Your task to perform on an android device: Play the last video I watched on Youtube Image 0: 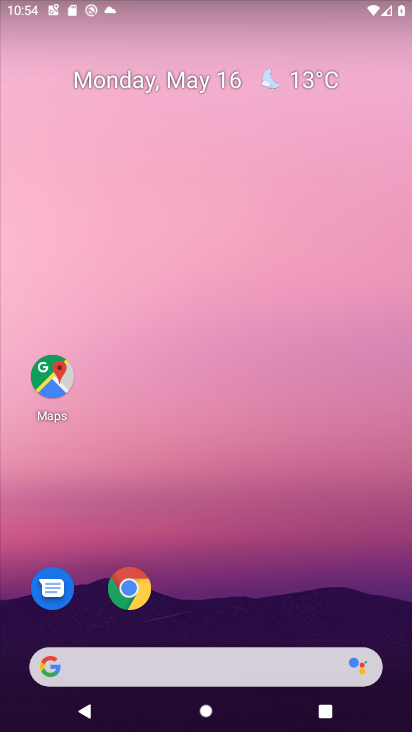
Step 0: drag from (218, 621) to (249, 104)
Your task to perform on an android device: Play the last video I watched on Youtube Image 1: 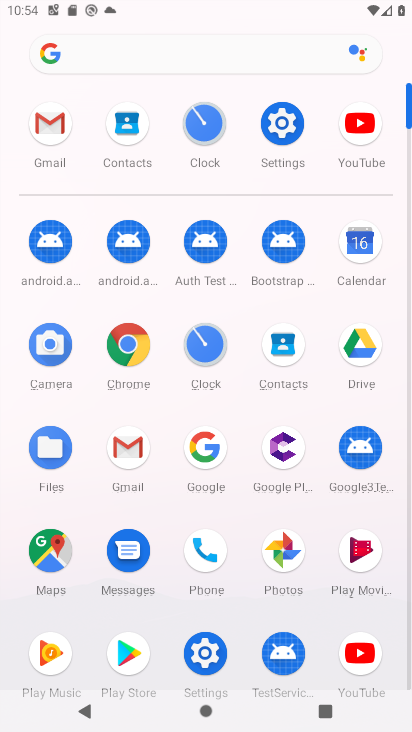
Step 1: click (361, 118)
Your task to perform on an android device: Play the last video I watched on Youtube Image 2: 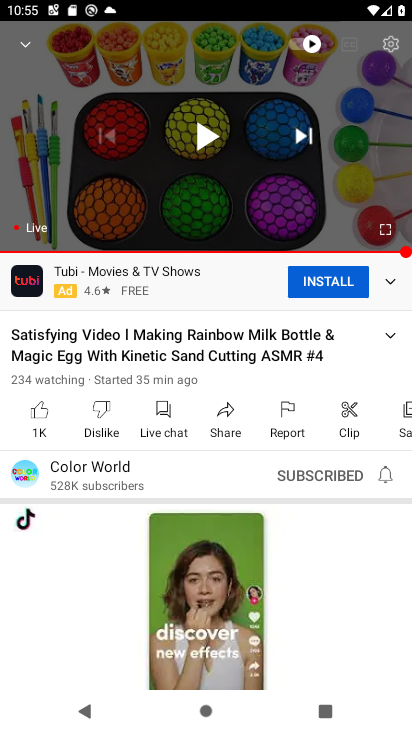
Step 2: task complete